Your task to perform on an android device: turn off sleep mode Image 0: 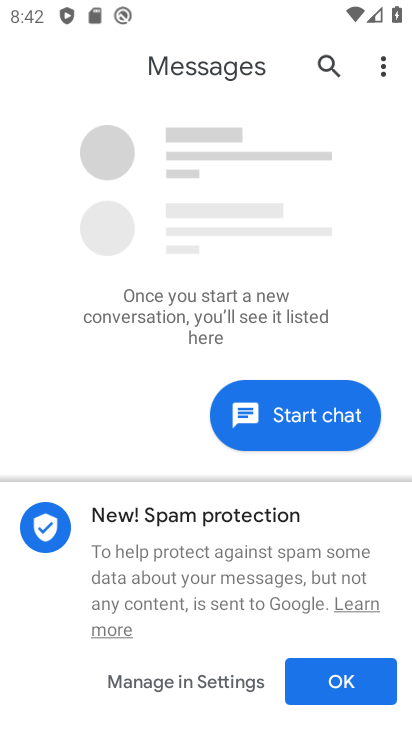
Step 0: press home button
Your task to perform on an android device: turn off sleep mode Image 1: 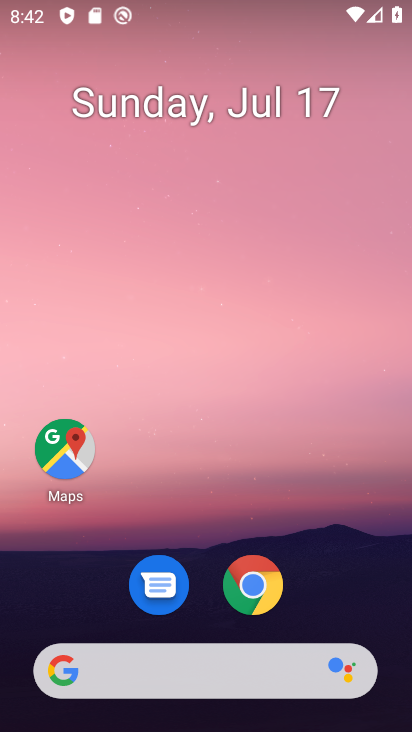
Step 1: drag from (163, 676) to (324, 85)
Your task to perform on an android device: turn off sleep mode Image 2: 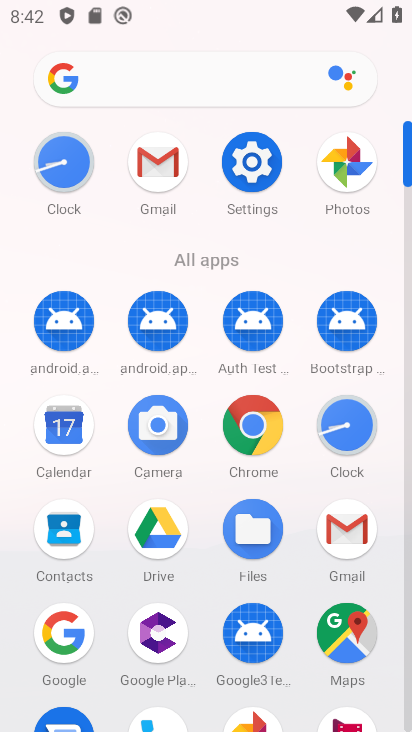
Step 2: click (256, 157)
Your task to perform on an android device: turn off sleep mode Image 3: 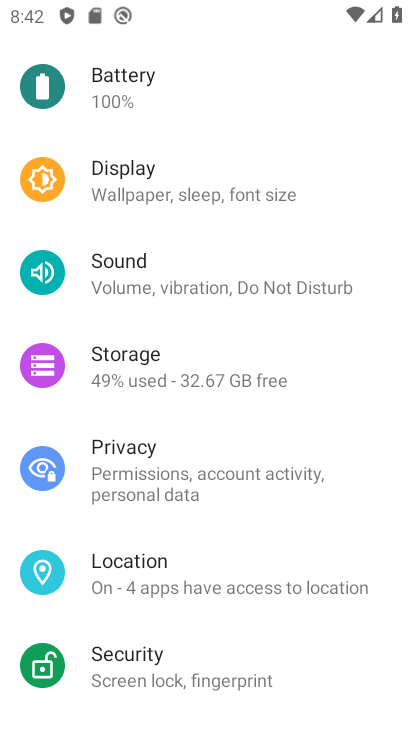
Step 3: click (190, 191)
Your task to perform on an android device: turn off sleep mode Image 4: 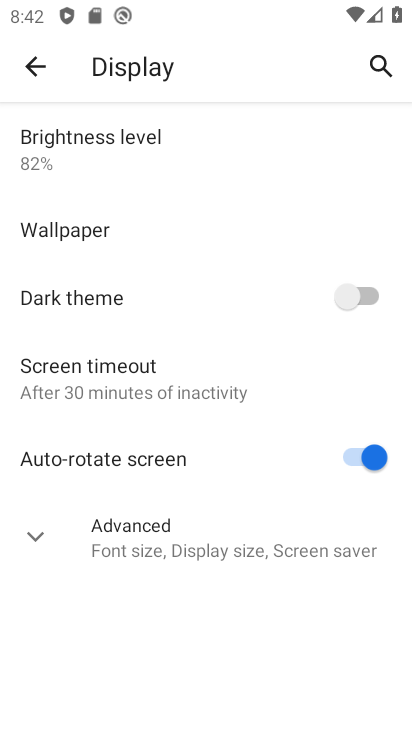
Step 4: click (119, 540)
Your task to perform on an android device: turn off sleep mode Image 5: 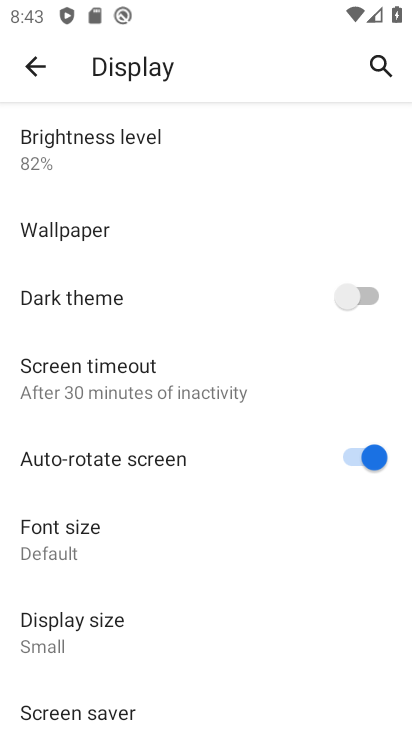
Step 5: task complete